Your task to perform on an android device: set default search engine in the chrome app Image 0: 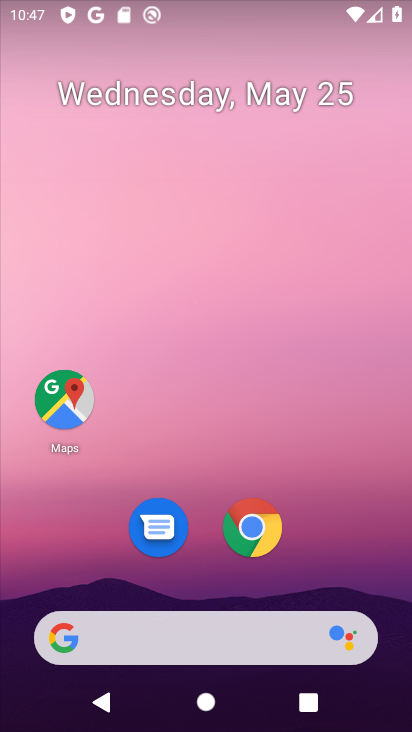
Step 0: click (231, 527)
Your task to perform on an android device: set default search engine in the chrome app Image 1: 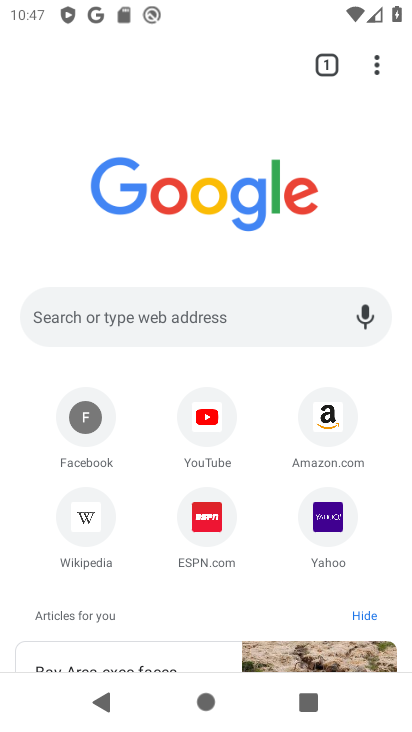
Step 1: click (367, 57)
Your task to perform on an android device: set default search engine in the chrome app Image 2: 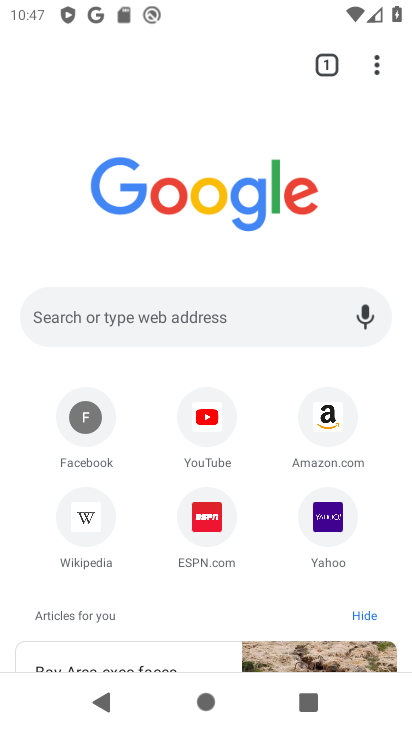
Step 2: click (373, 68)
Your task to perform on an android device: set default search engine in the chrome app Image 3: 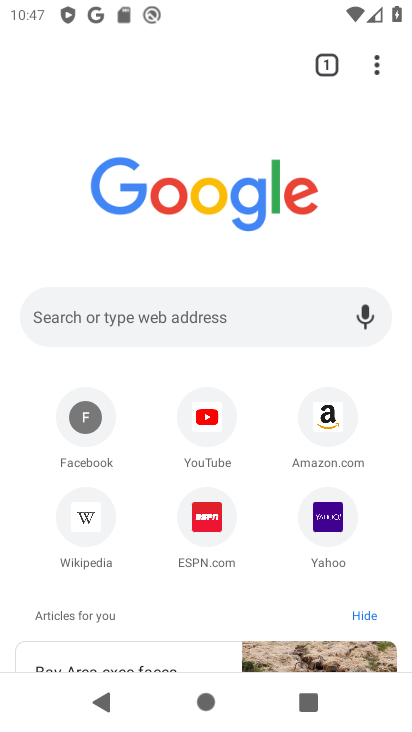
Step 3: click (376, 63)
Your task to perform on an android device: set default search engine in the chrome app Image 4: 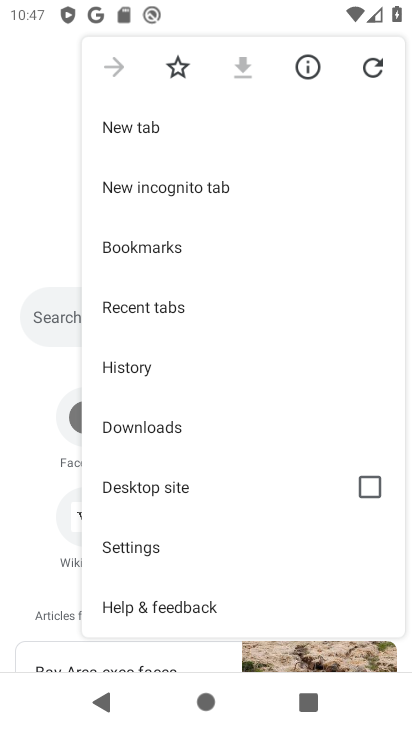
Step 4: click (160, 528)
Your task to perform on an android device: set default search engine in the chrome app Image 5: 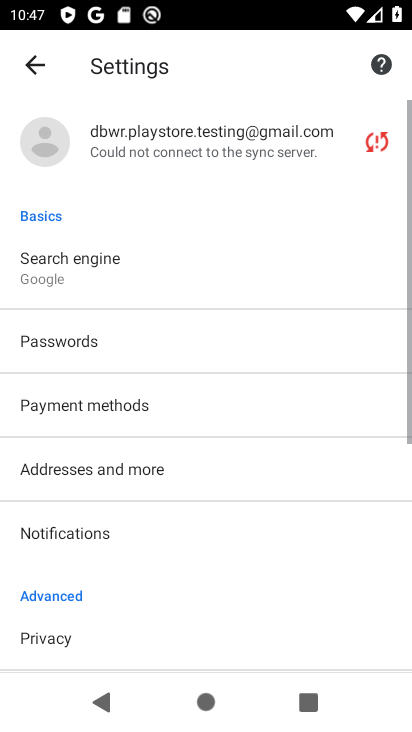
Step 5: click (138, 252)
Your task to perform on an android device: set default search engine in the chrome app Image 6: 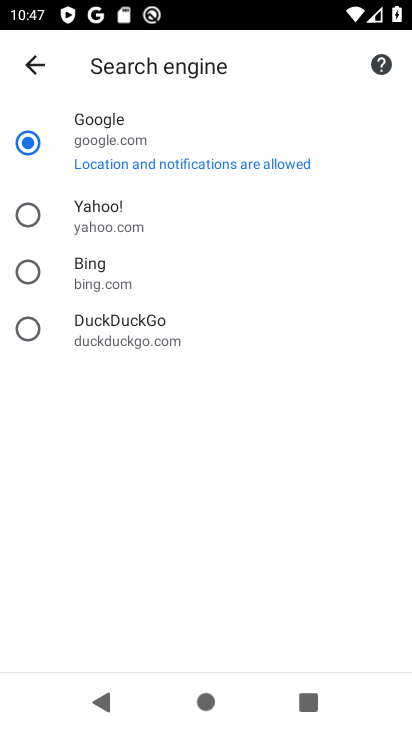
Step 6: click (116, 213)
Your task to perform on an android device: set default search engine in the chrome app Image 7: 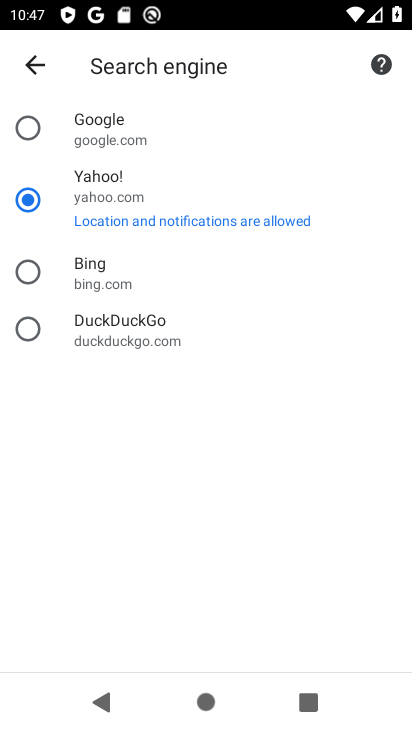
Step 7: task complete